Your task to perform on an android device: Open maps Image 0: 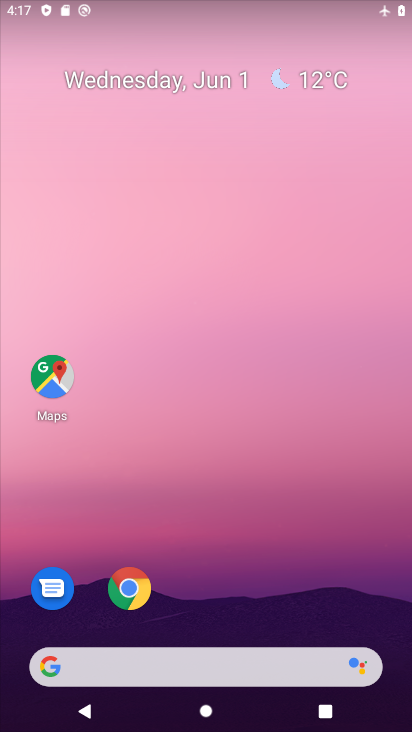
Step 0: drag from (269, 622) to (271, 37)
Your task to perform on an android device: Open maps Image 1: 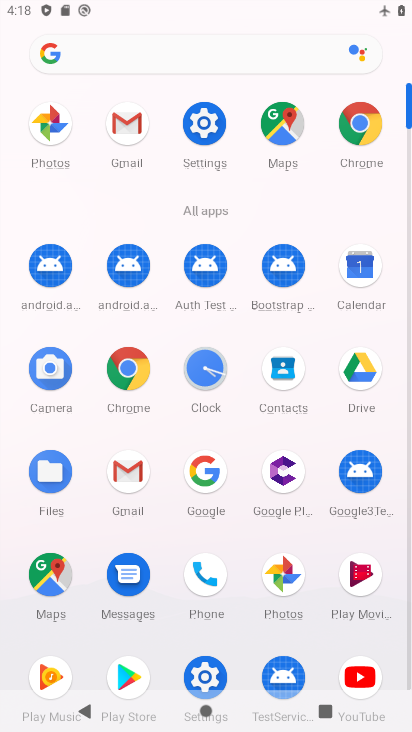
Step 1: click (66, 583)
Your task to perform on an android device: Open maps Image 2: 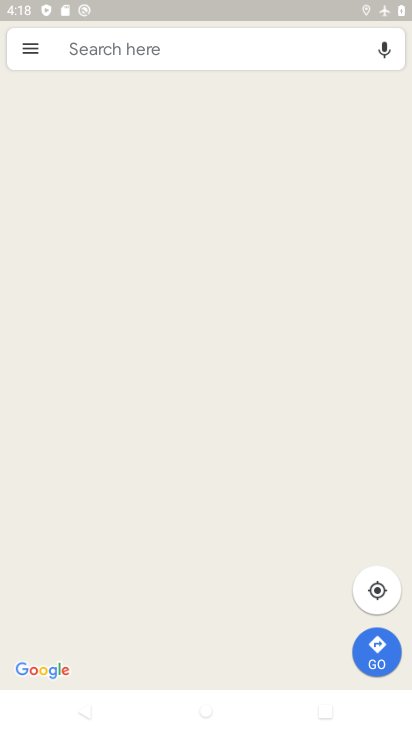
Step 2: task complete